Your task to perform on an android device: Open Chrome and go to settings Image 0: 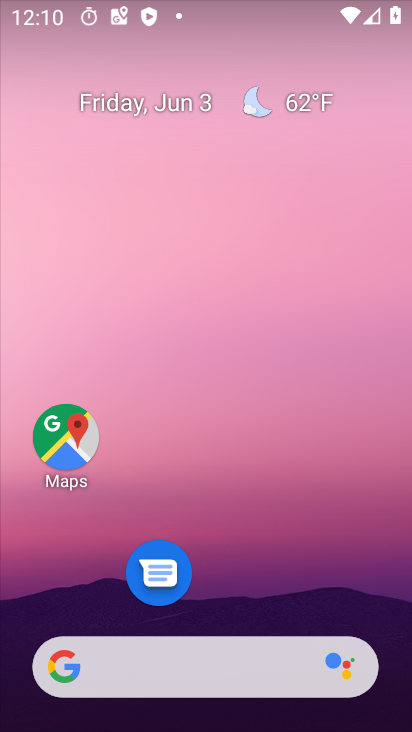
Step 0: drag from (353, 636) to (352, 61)
Your task to perform on an android device: Open Chrome and go to settings Image 1: 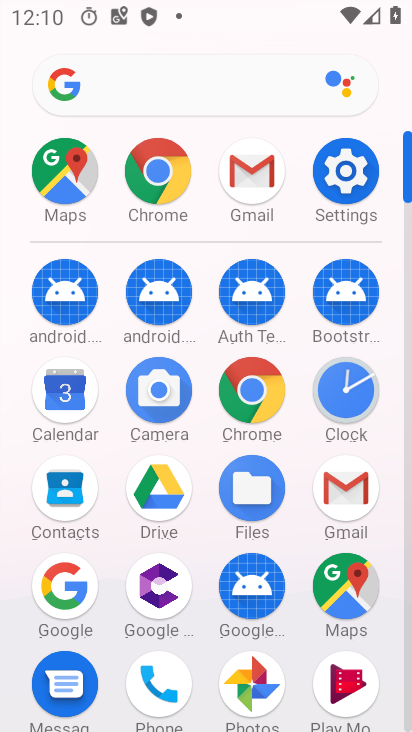
Step 1: click (246, 370)
Your task to perform on an android device: Open Chrome and go to settings Image 2: 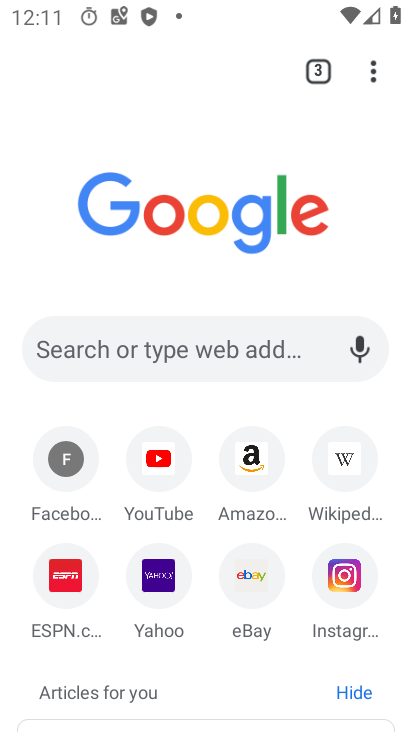
Step 2: press home button
Your task to perform on an android device: Open Chrome and go to settings Image 3: 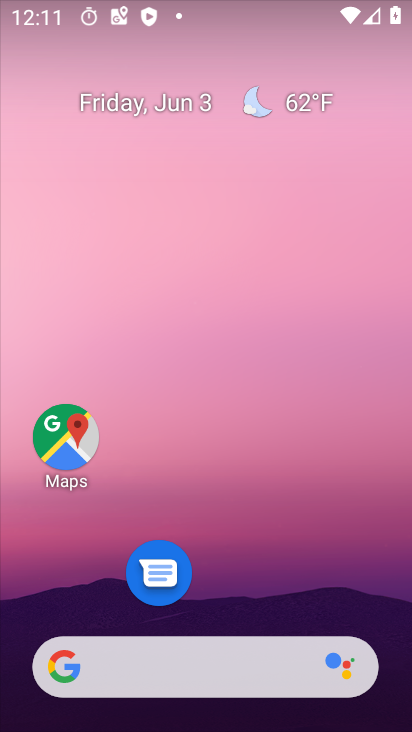
Step 3: drag from (235, 669) to (239, 49)
Your task to perform on an android device: Open Chrome and go to settings Image 4: 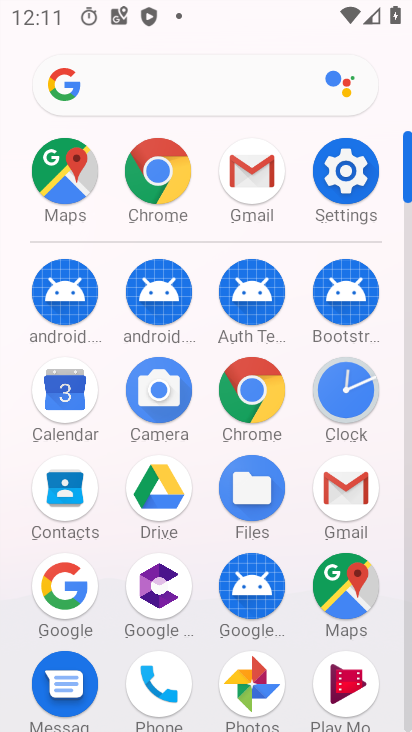
Step 4: click (258, 410)
Your task to perform on an android device: Open Chrome and go to settings Image 5: 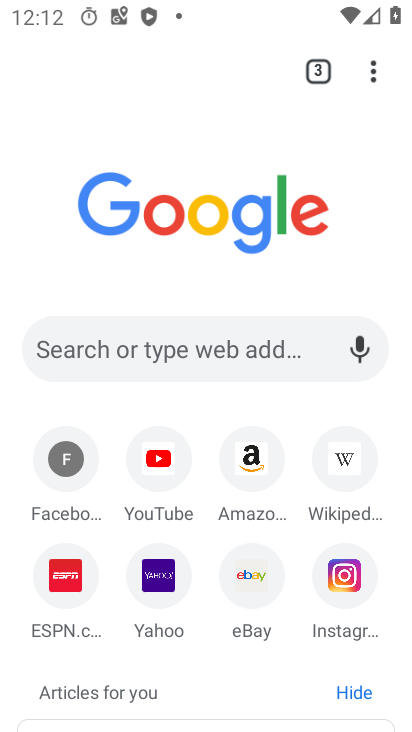
Step 5: task complete